Your task to perform on an android device: open a bookmark in the chrome app Image 0: 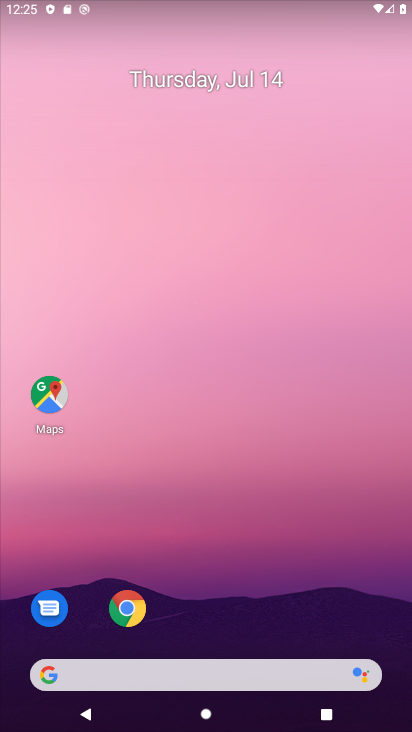
Step 0: press home button
Your task to perform on an android device: open a bookmark in the chrome app Image 1: 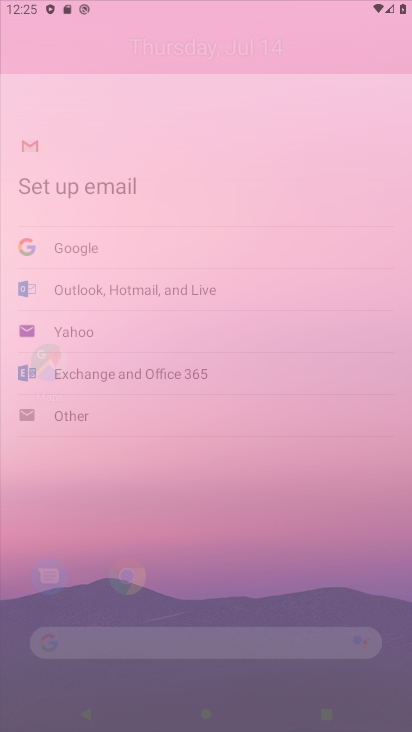
Step 1: drag from (324, 661) to (149, 106)
Your task to perform on an android device: open a bookmark in the chrome app Image 2: 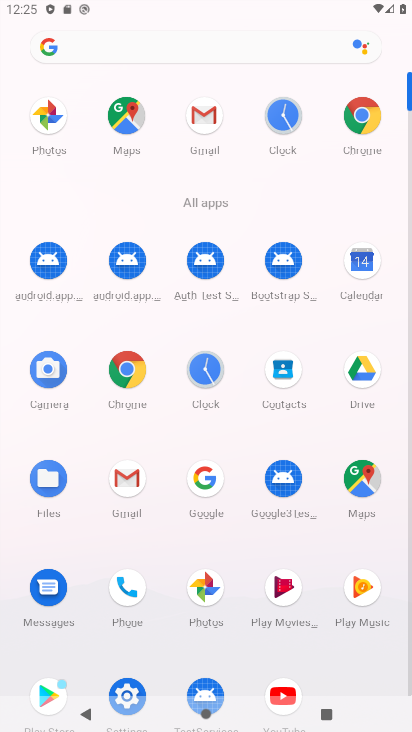
Step 2: click (359, 141)
Your task to perform on an android device: open a bookmark in the chrome app Image 3: 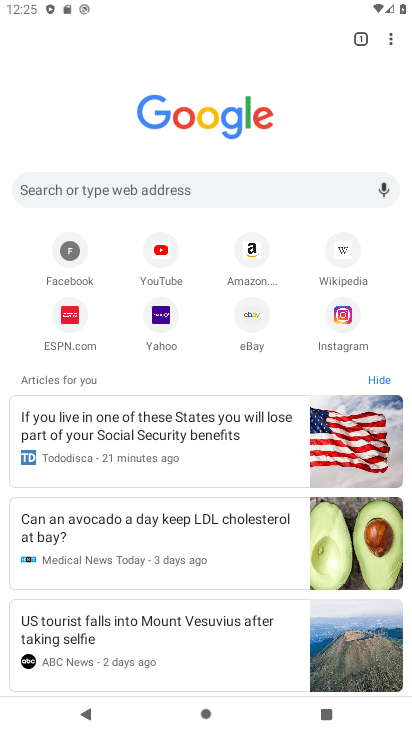
Step 3: drag from (385, 43) to (259, 328)
Your task to perform on an android device: open a bookmark in the chrome app Image 4: 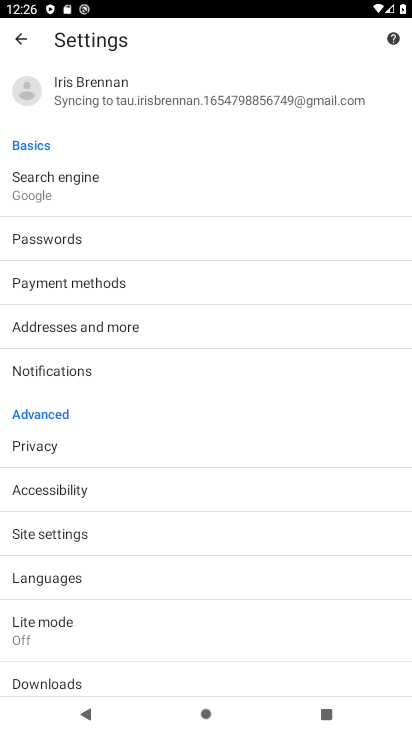
Step 4: click (9, 40)
Your task to perform on an android device: open a bookmark in the chrome app Image 5: 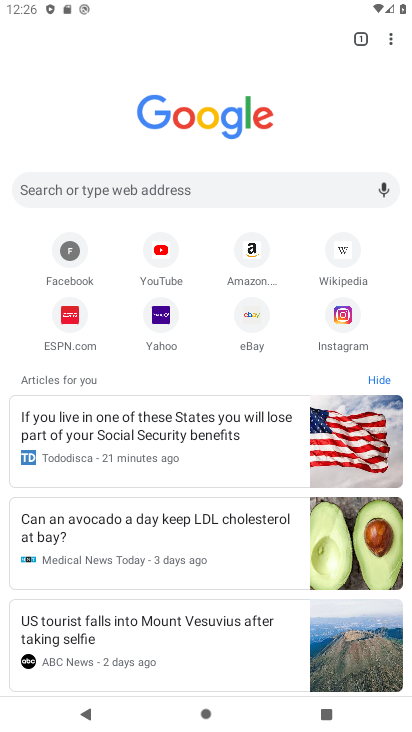
Step 5: task complete